Your task to perform on an android device: turn pop-ups on in chrome Image 0: 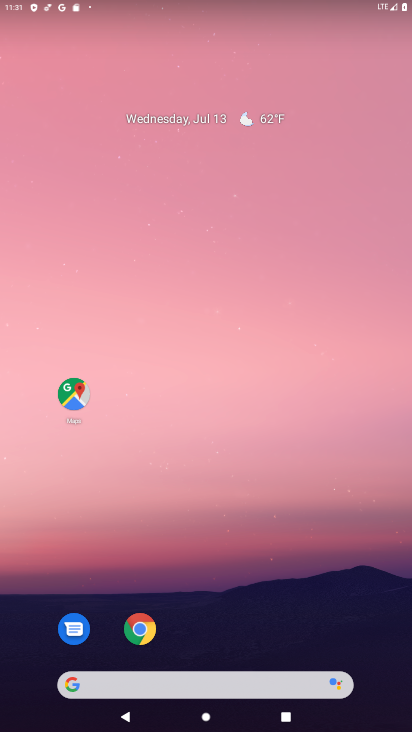
Step 0: click (147, 638)
Your task to perform on an android device: turn pop-ups on in chrome Image 1: 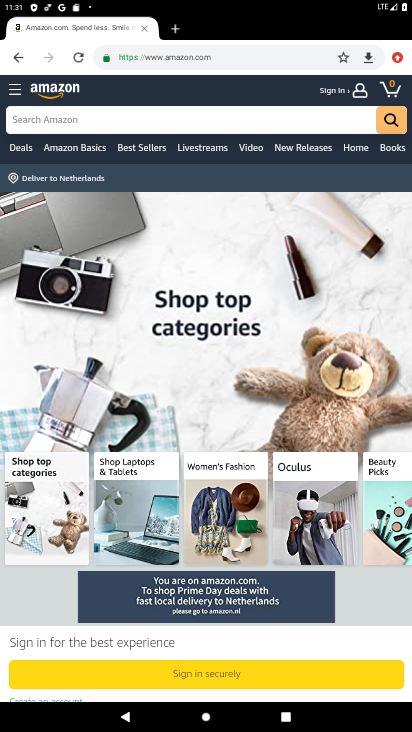
Step 1: click (395, 56)
Your task to perform on an android device: turn pop-ups on in chrome Image 2: 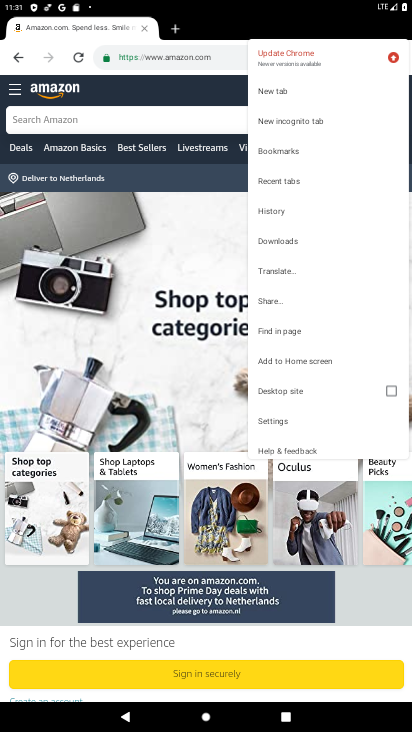
Step 2: click (297, 425)
Your task to perform on an android device: turn pop-ups on in chrome Image 3: 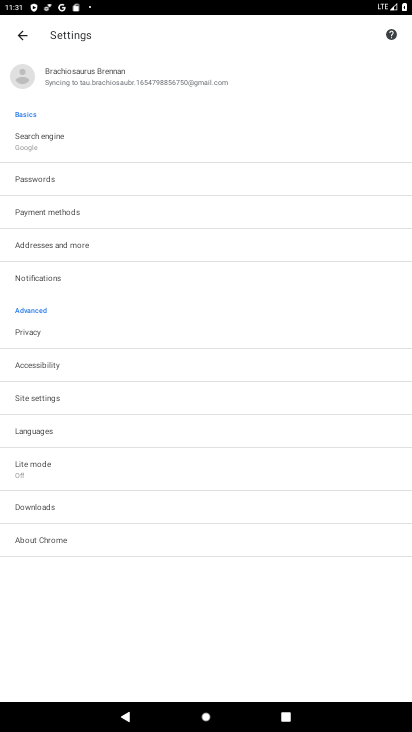
Step 3: click (120, 402)
Your task to perform on an android device: turn pop-ups on in chrome Image 4: 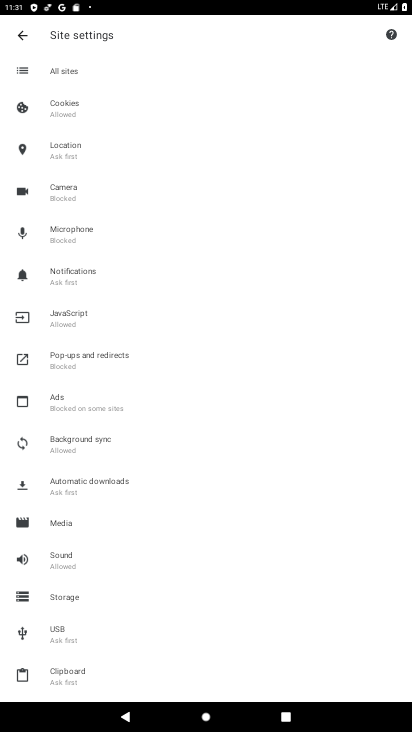
Step 4: click (95, 371)
Your task to perform on an android device: turn pop-ups on in chrome Image 5: 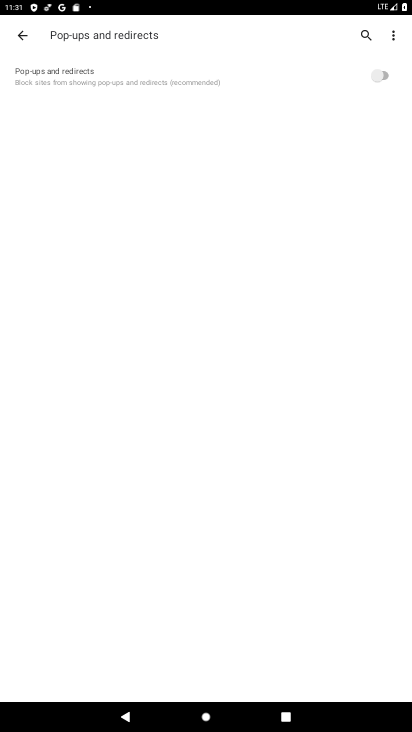
Step 5: click (387, 75)
Your task to perform on an android device: turn pop-ups on in chrome Image 6: 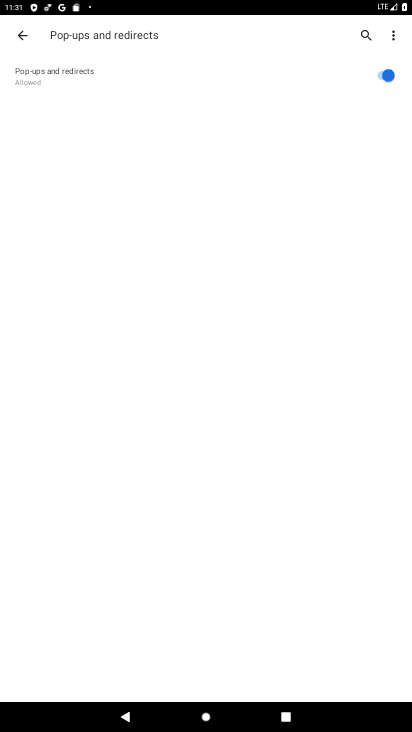
Step 6: task complete